Your task to perform on an android device: Go to accessibility settings Image 0: 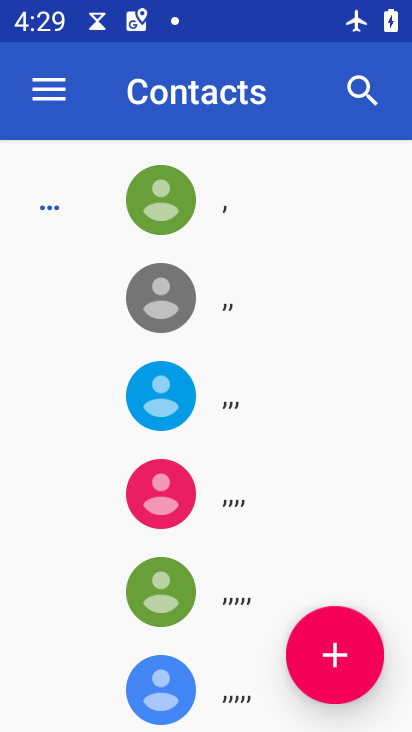
Step 0: press home button
Your task to perform on an android device: Go to accessibility settings Image 1: 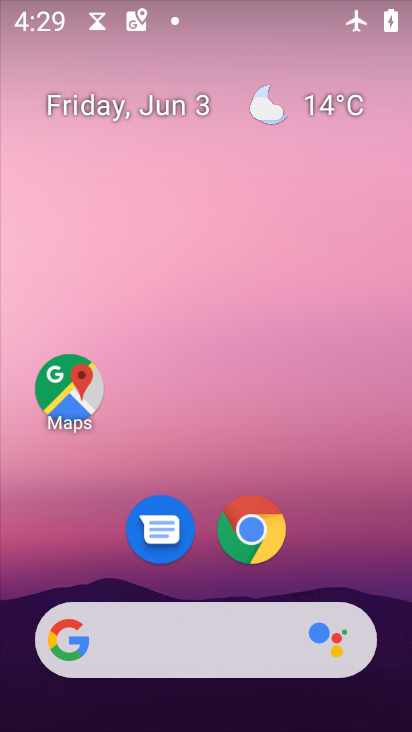
Step 1: drag from (344, 353) to (310, 5)
Your task to perform on an android device: Go to accessibility settings Image 2: 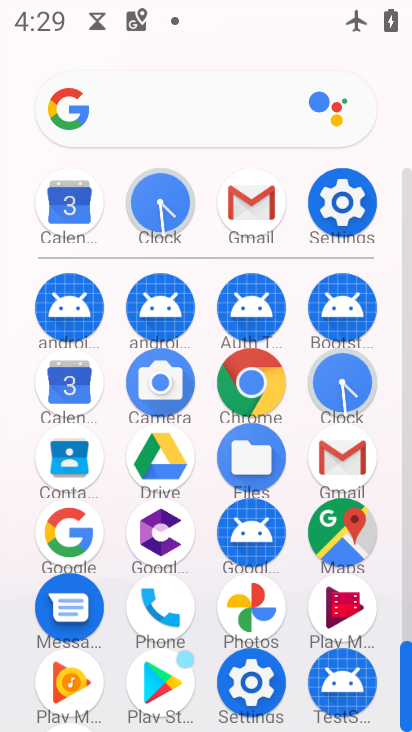
Step 2: click (349, 192)
Your task to perform on an android device: Go to accessibility settings Image 3: 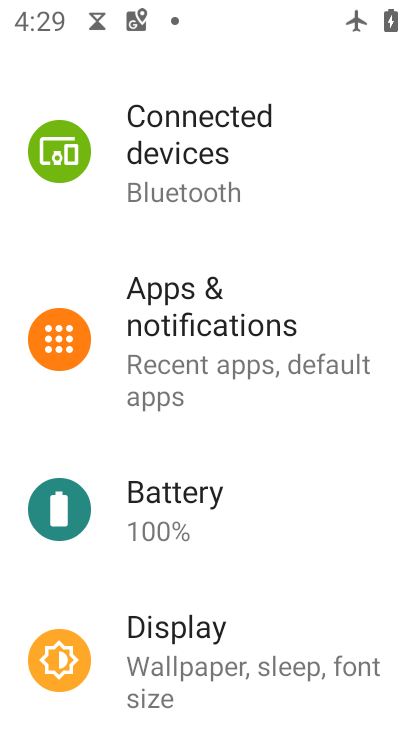
Step 3: drag from (268, 176) to (234, 660)
Your task to perform on an android device: Go to accessibility settings Image 4: 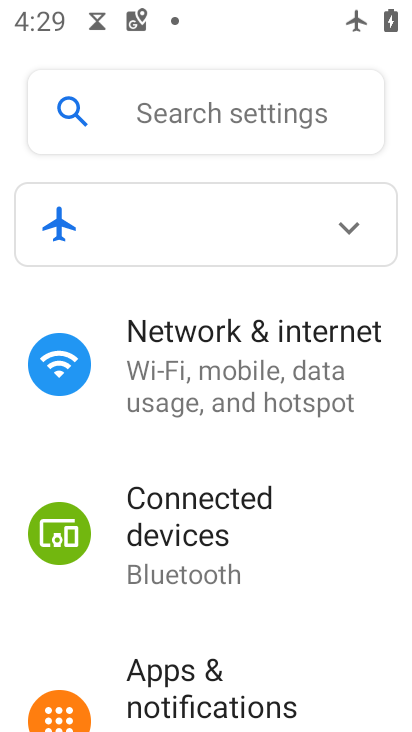
Step 4: drag from (209, 604) to (262, 216)
Your task to perform on an android device: Go to accessibility settings Image 5: 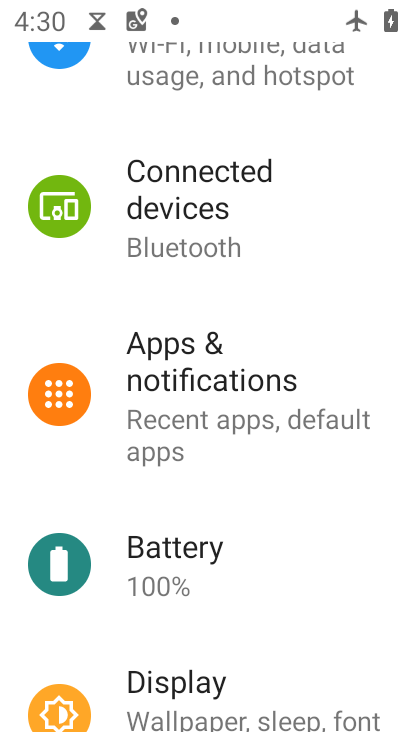
Step 5: drag from (256, 568) to (292, 180)
Your task to perform on an android device: Go to accessibility settings Image 6: 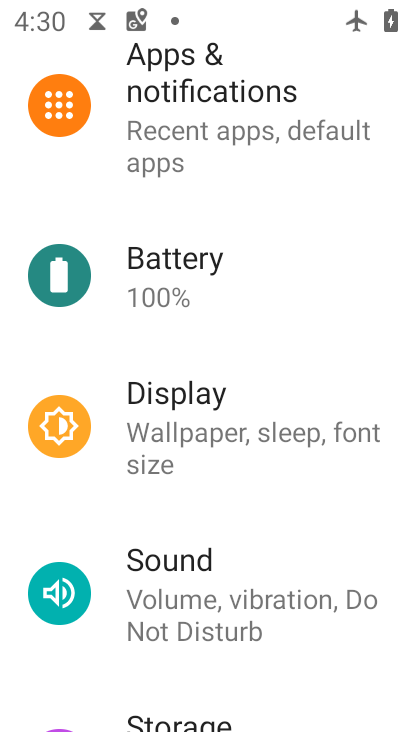
Step 6: drag from (218, 564) to (260, 158)
Your task to perform on an android device: Go to accessibility settings Image 7: 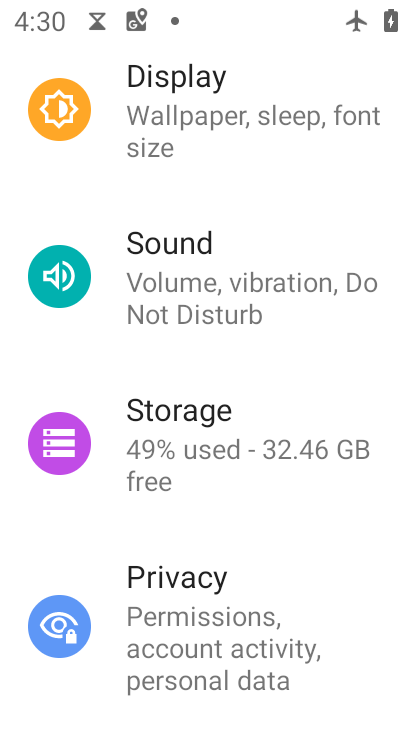
Step 7: drag from (240, 556) to (256, 141)
Your task to perform on an android device: Go to accessibility settings Image 8: 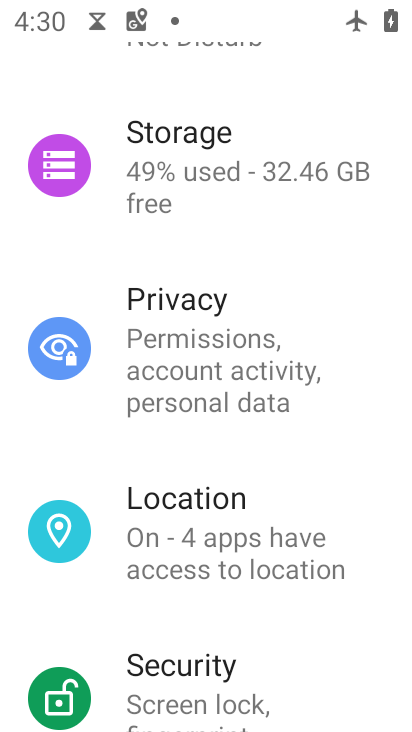
Step 8: drag from (196, 599) to (152, 183)
Your task to perform on an android device: Go to accessibility settings Image 9: 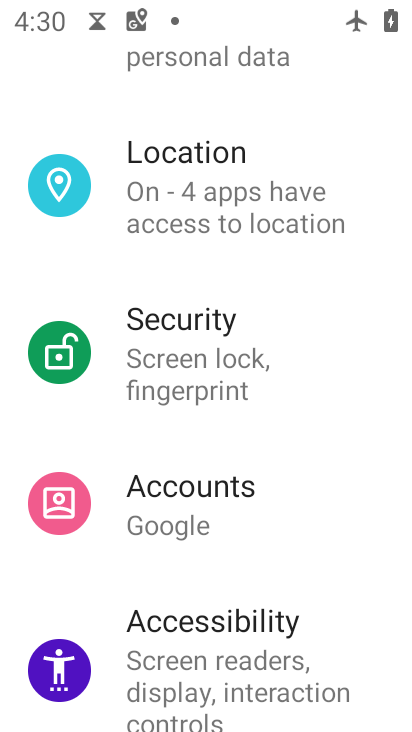
Step 9: click (176, 624)
Your task to perform on an android device: Go to accessibility settings Image 10: 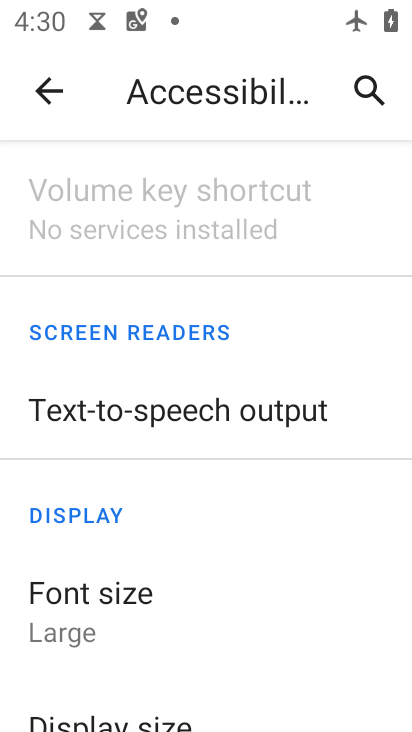
Step 10: task complete